Your task to perform on an android device: Open the stopwatch Image 0: 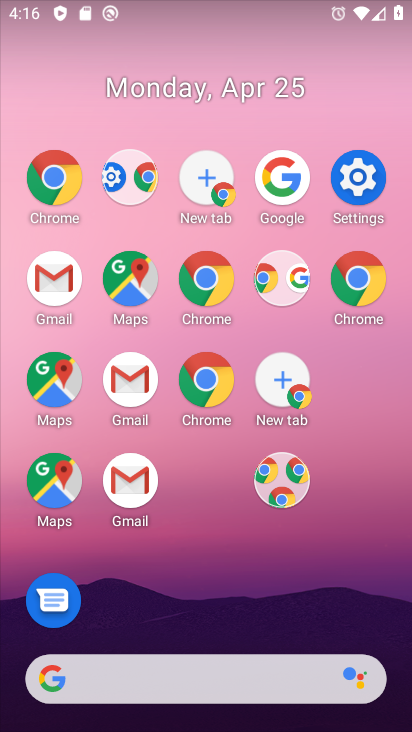
Step 0: drag from (277, 730) to (113, 209)
Your task to perform on an android device: Open the stopwatch Image 1: 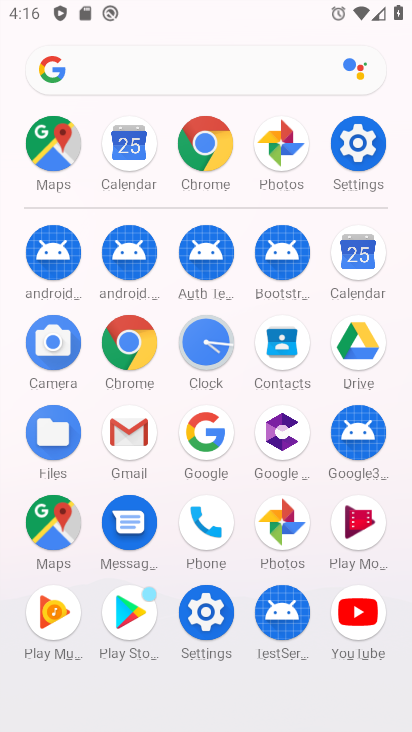
Step 1: click (216, 351)
Your task to perform on an android device: Open the stopwatch Image 2: 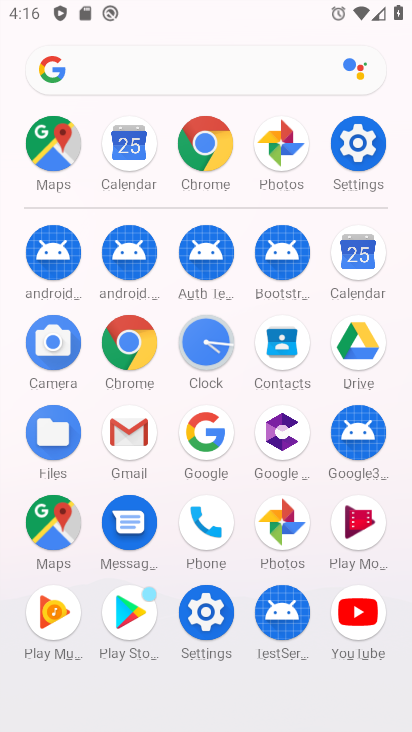
Step 2: click (216, 351)
Your task to perform on an android device: Open the stopwatch Image 3: 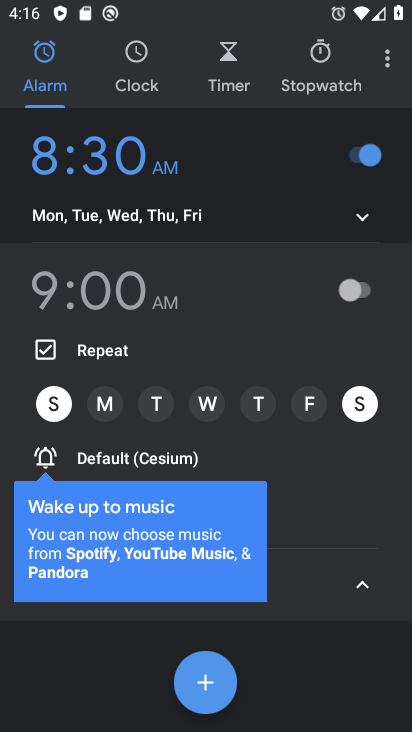
Step 3: click (312, 50)
Your task to perform on an android device: Open the stopwatch Image 4: 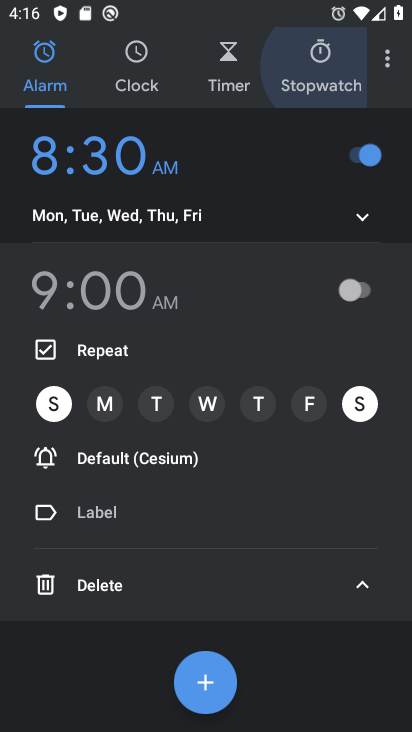
Step 4: click (311, 51)
Your task to perform on an android device: Open the stopwatch Image 5: 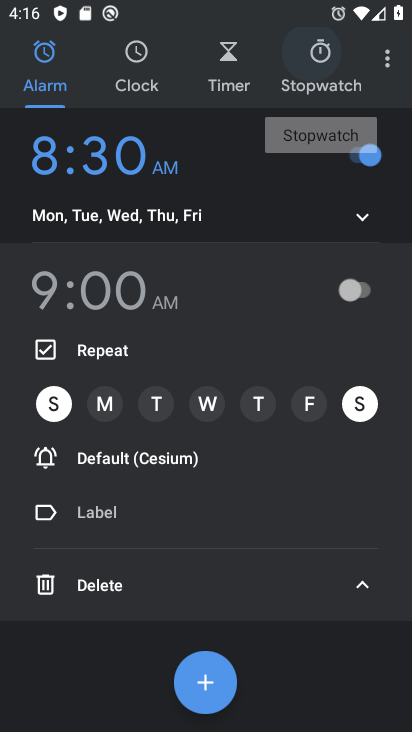
Step 5: click (310, 50)
Your task to perform on an android device: Open the stopwatch Image 6: 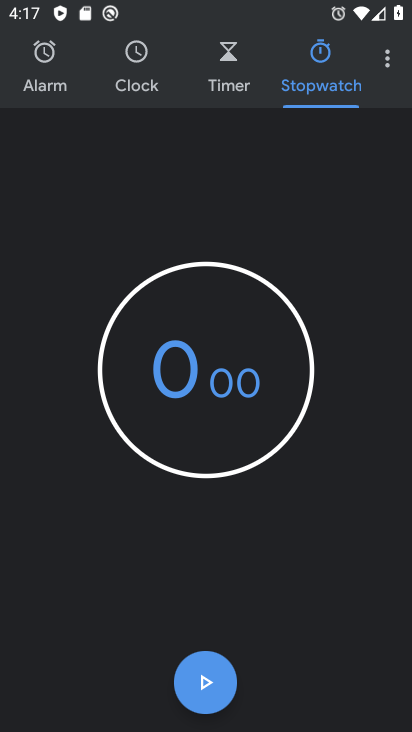
Step 6: click (209, 687)
Your task to perform on an android device: Open the stopwatch Image 7: 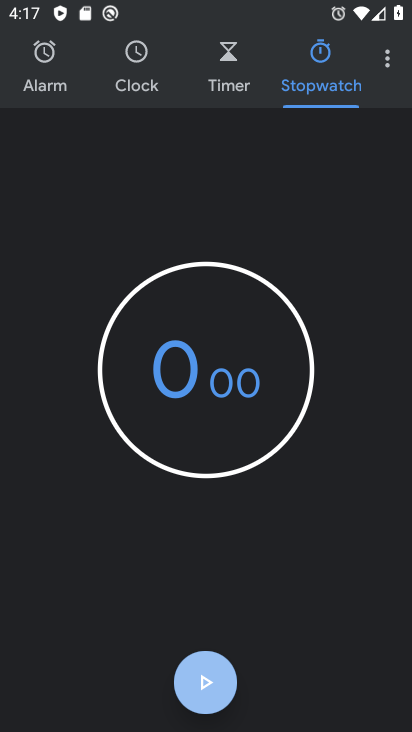
Step 7: click (207, 684)
Your task to perform on an android device: Open the stopwatch Image 8: 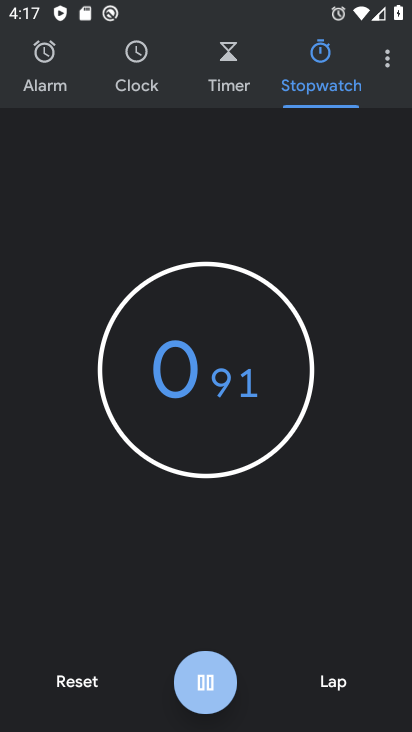
Step 8: click (208, 685)
Your task to perform on an android device: Open the stopwatch Image 9: 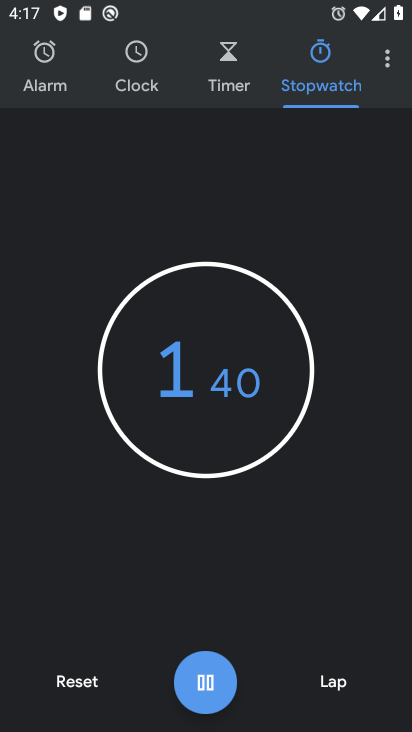
Step 9: click (208, 687)
Your task to perform on an android device: Open the stopwatch Image 10: 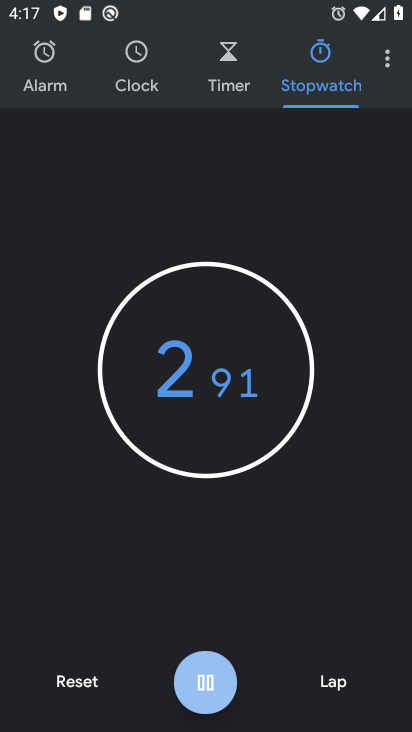
Step 10: click (191, 661)
Your task to perform on an android device: Open the stopwatch Image 11: 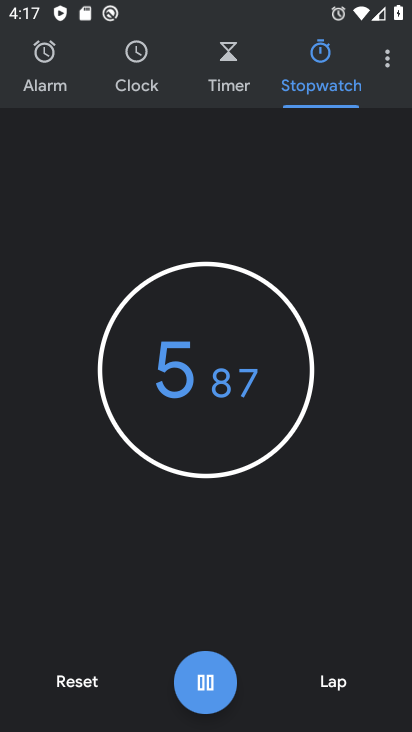
Step 11: click (205, 682)
Your task to perform on an android device: Open the stopwatch Image 12: 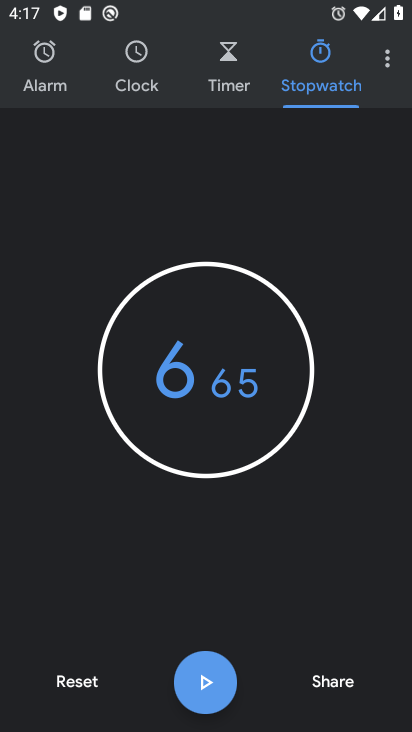
Step 12: click (207, 683)
Your task to perform on an android device: Open the stopwatch Image 13: 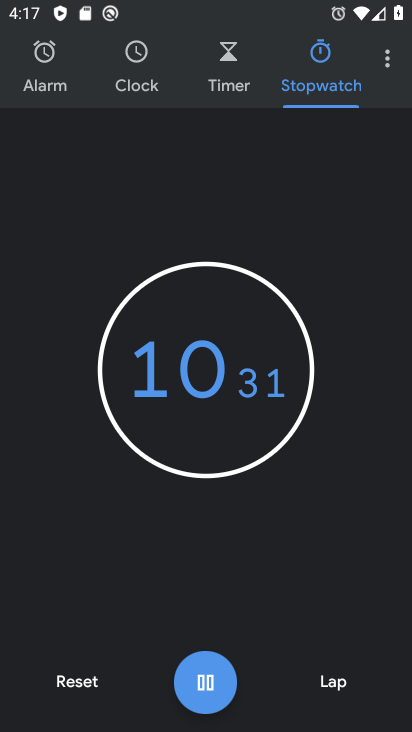
Step 13: click (209, 679)
Your task to perform on an android device: Open the stopwatch Image 14: 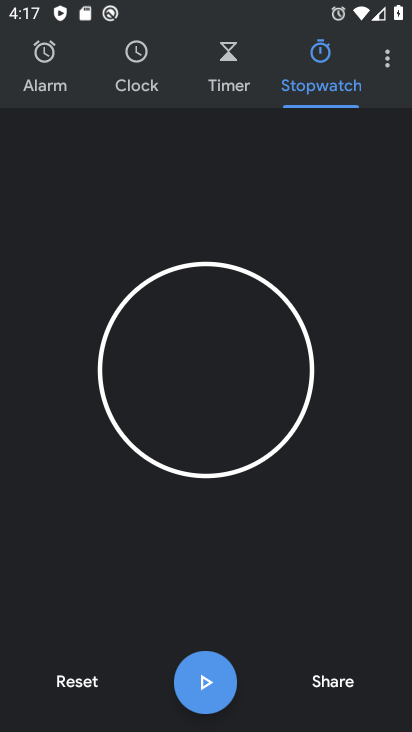
Step 14: task complete